Your task to perform on an android device: Go to Wikipedia Image 0: 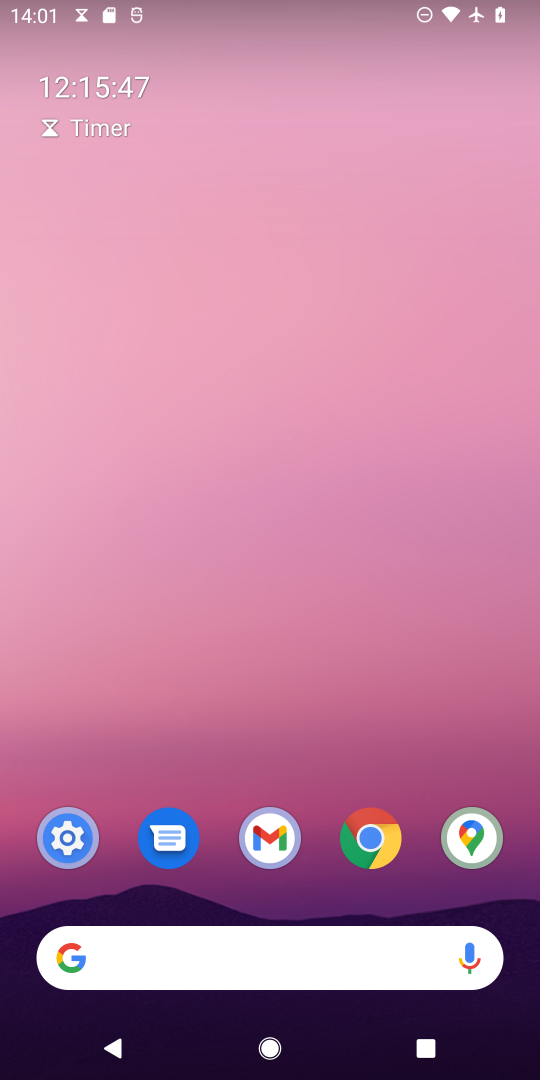
Step 0: press home button
Your task to perform on an android device: Go to Wikipedia Image 1: 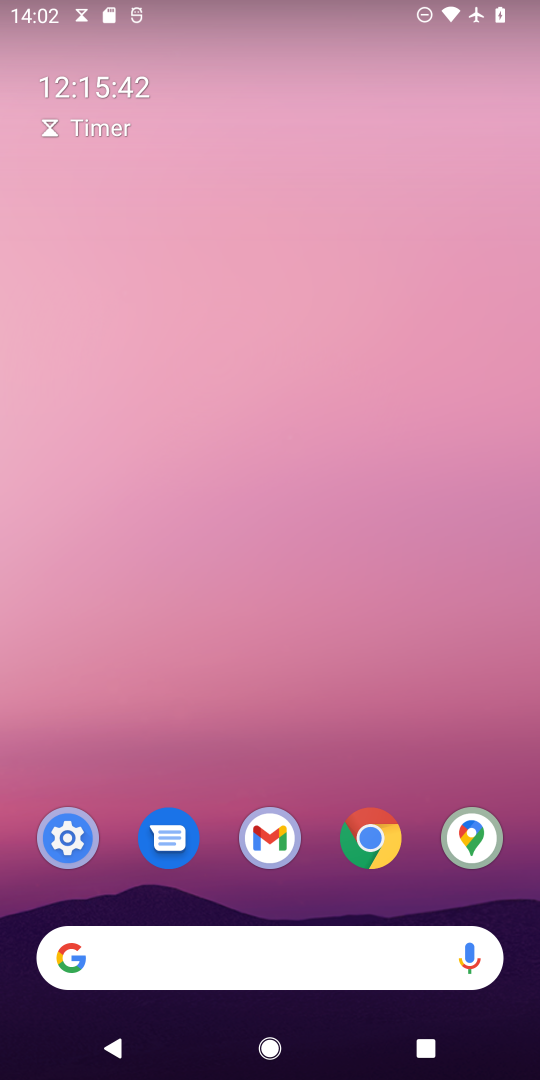
Step 1: click (63, 958)
Your task to perform on an android device: Go to Wikipedia Image 2: 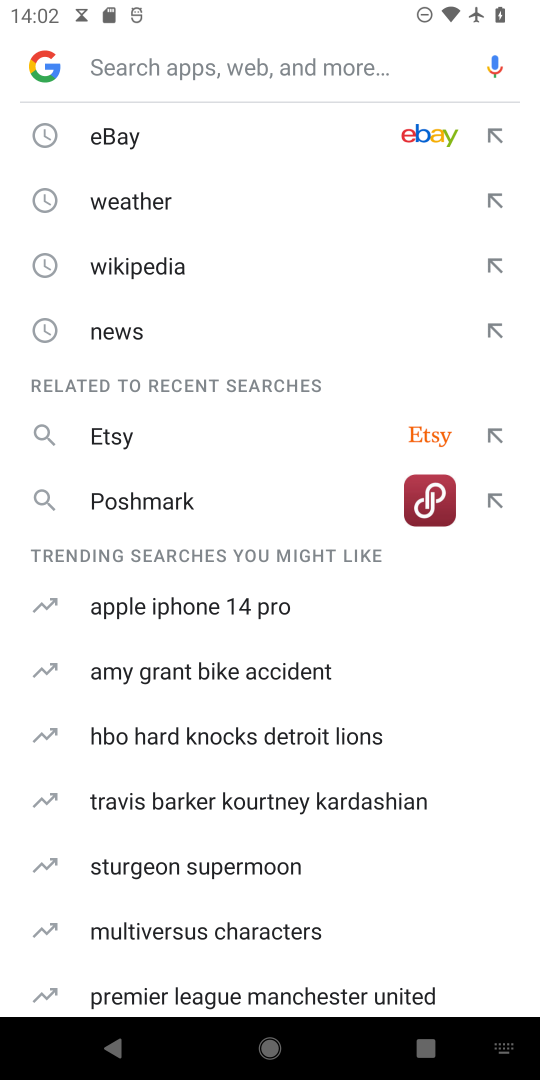
Step 2: click (140, 273)
Your task to perform on an android device: Go to Wikipedia Image 3: 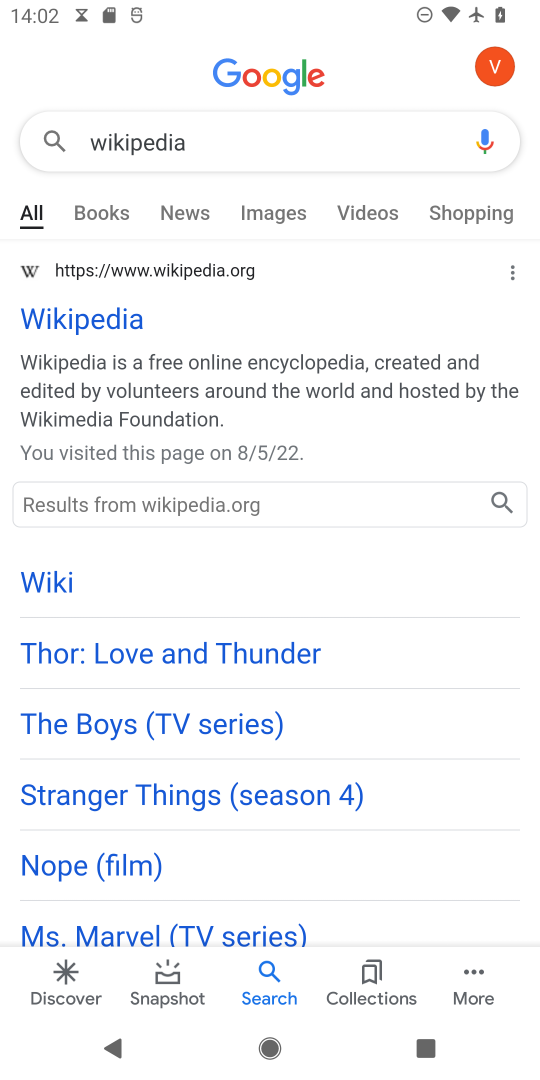
Step 3: click (75, 322)
Your task to perform on an android device: Go to Wikipedia Image 4: 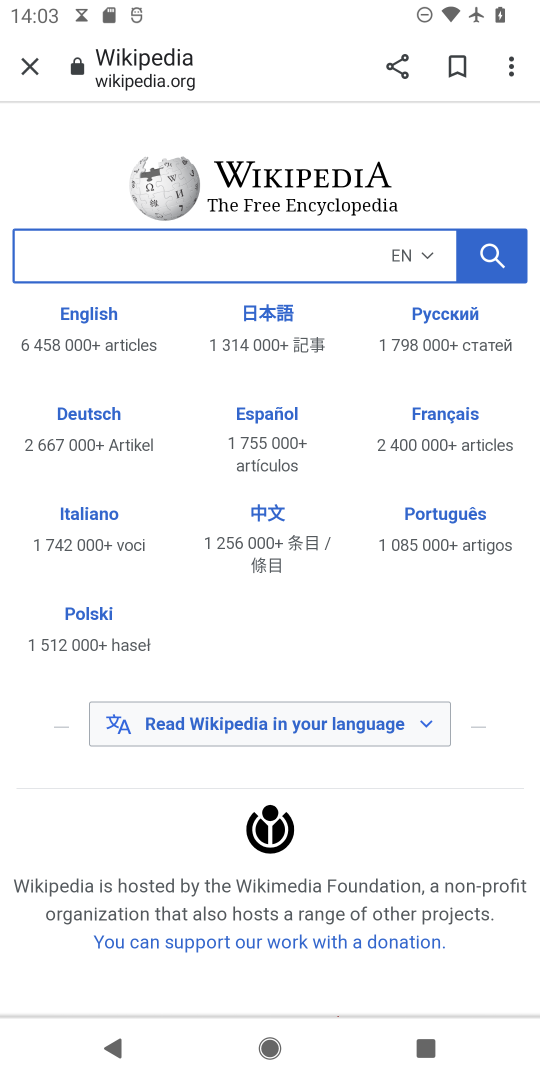
Step 4: task complete